Your task to perform on an android device: toggle sleep mode Image 0: 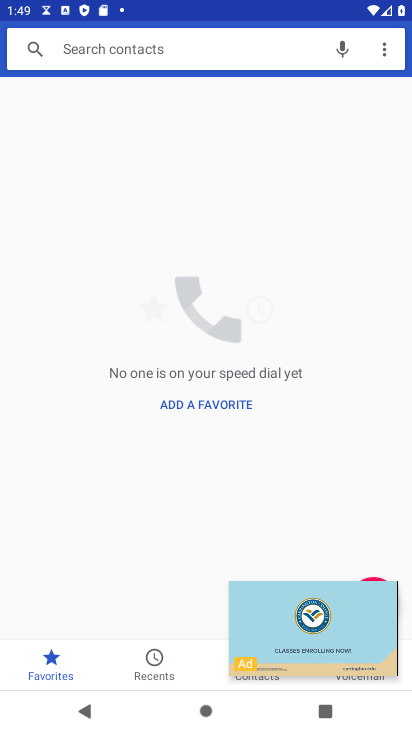
Step 0: press home button
Your task to perform on an android device: toggle sleep mode Image 1: 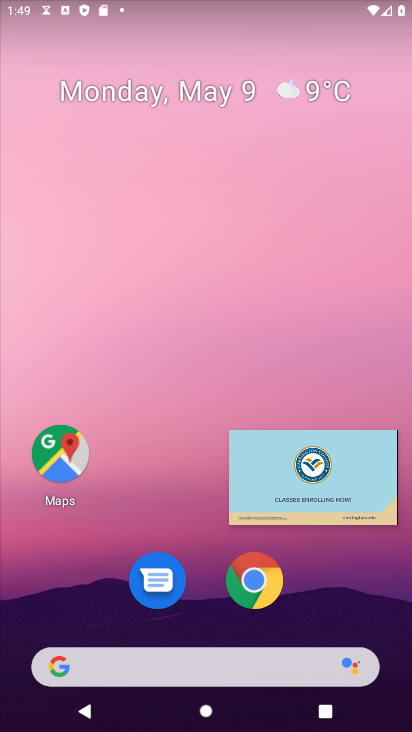
Step 1: drag from (339, 563) to (278, 45)
Your task to perform on an android device: toggle sleep mode Image 2: 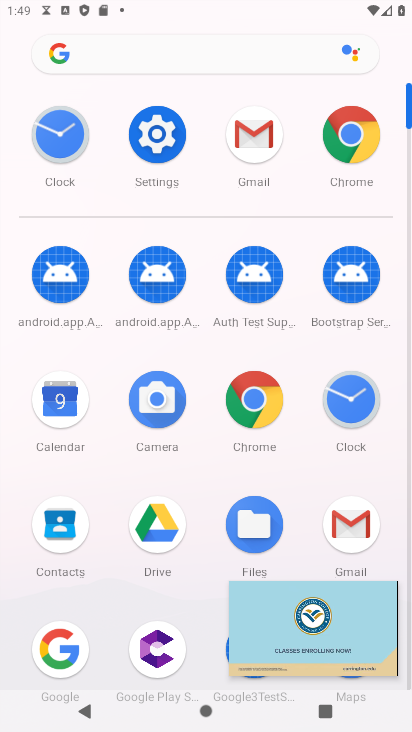
Step 2: click (165, 149)
Your task to perform on an android device: toggle sleep mode Image 3: 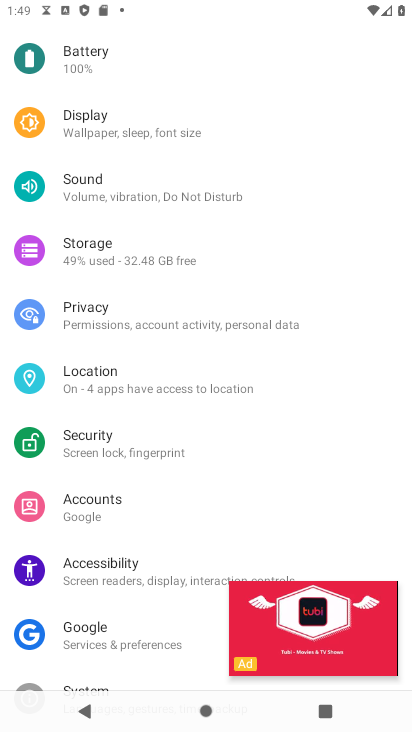
Step 3: click (147, 128)
Your task to perform on an android device: toggle sleep mode Image 4: 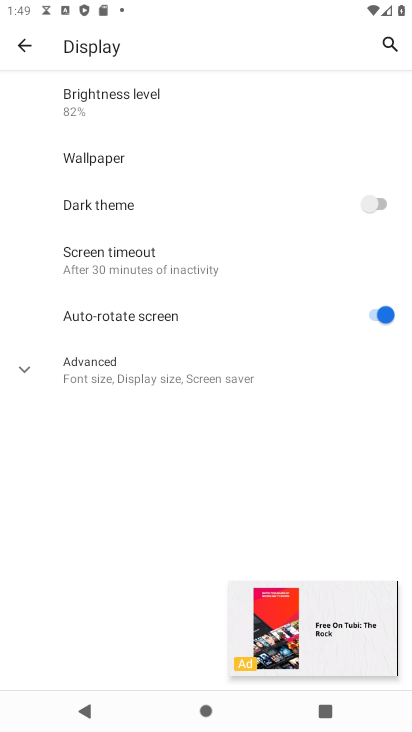
Step 4: task complete